Your task to perform on an android device: When is my next appointment? Image 0: 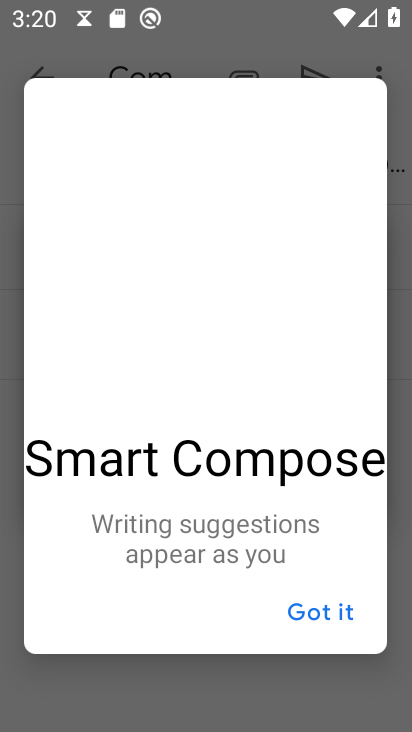
Step 0: press home button
Your task to perform on an android device: When is my next appointment? Image 1: 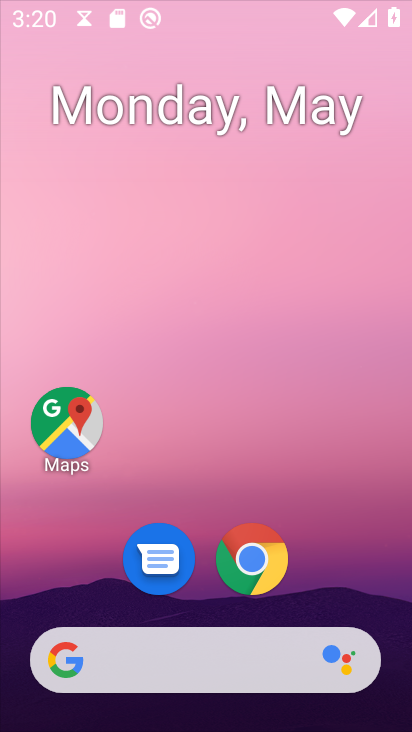
Step 1: drag from (194, 632) to (256, 276)
Your task to perform on an android device: When is my next appointment? Image 2: 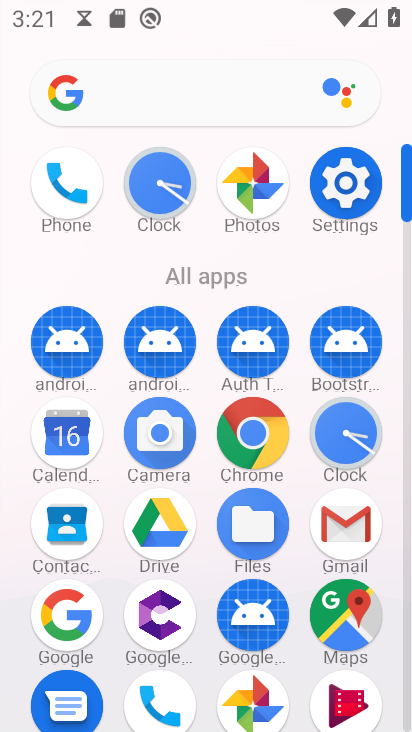
Step 2: click (70, 444)
Your task to perform on an android device: When is my next appointment? Image 3: 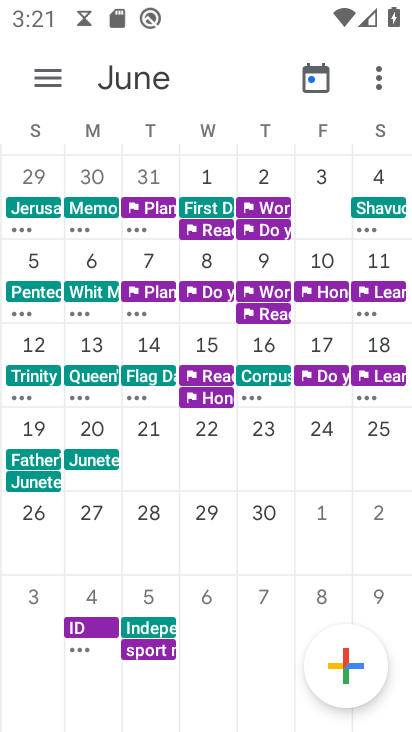
Step 3: click (324, 351)
Your task to perform on an android device: When is my next appointment? Image 4: 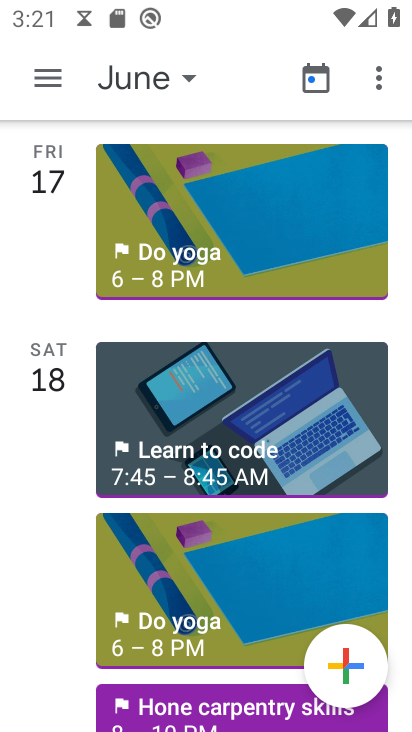
Step 4: task complete